Your task to perform on an android device: turn on the 24-hour format for clock Image 0: 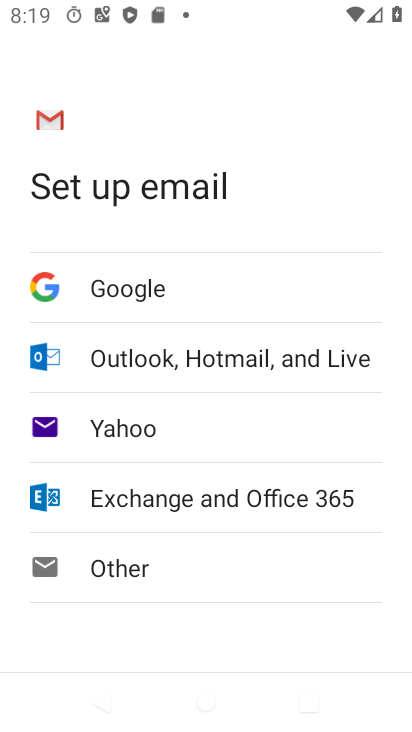
Step 0: press home button
Your task to perform on an android device: turn on the 24-hour format for clock Image 1: 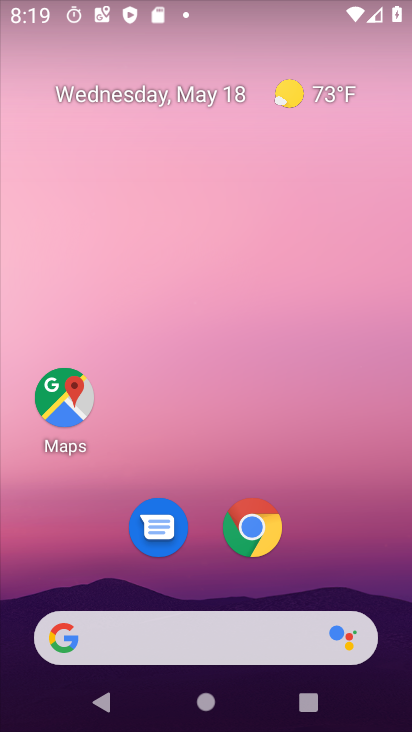
Step 1: drag from (390, 615) to (350, 204)
Your task to perform on an android device: turn on the 24-hour format for clock Image 2: 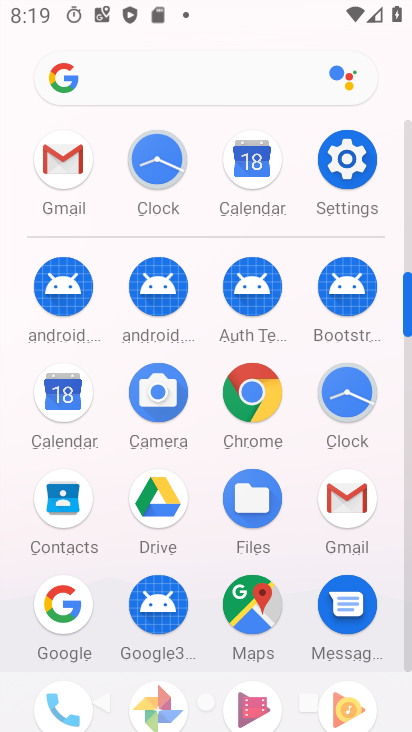
Step 2: click (342, 398)
Your task to perform on an android device: turn on the 24-hour format for clock Image 3: 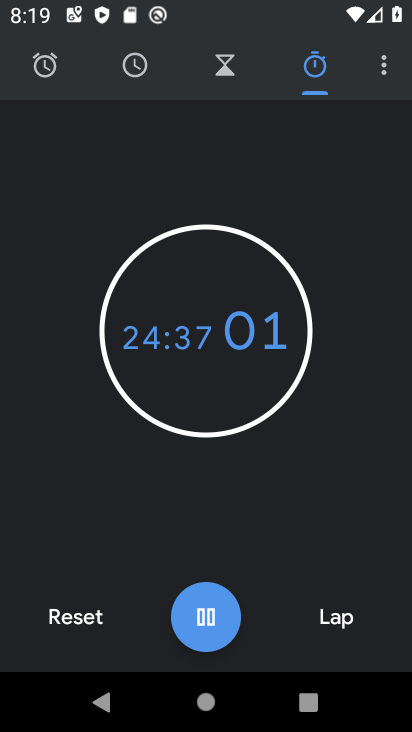
Step 3: click (384, 59)
Your task to perform on an android device: turn on the 24-hour format for clock Image 4: 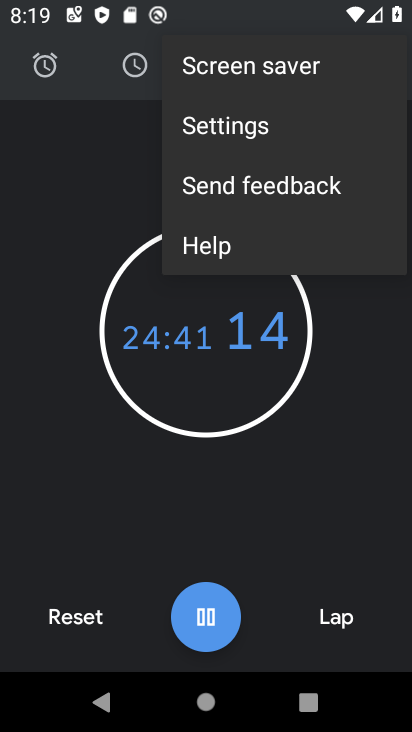
Step 4: click (243, 124)
Your task to perform on an android device: turn on the 24-hour format for clock Image 5: 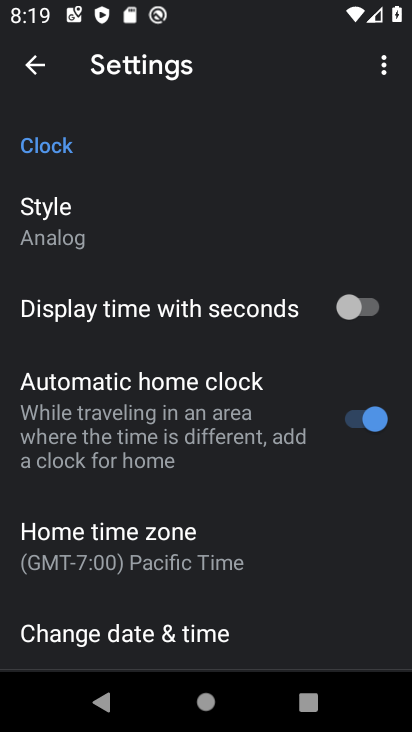
Step 5: drag from (290, 617) to (197, 170)
Your task to perform on an android device: turn on the 24-hour format for clock Image 6: 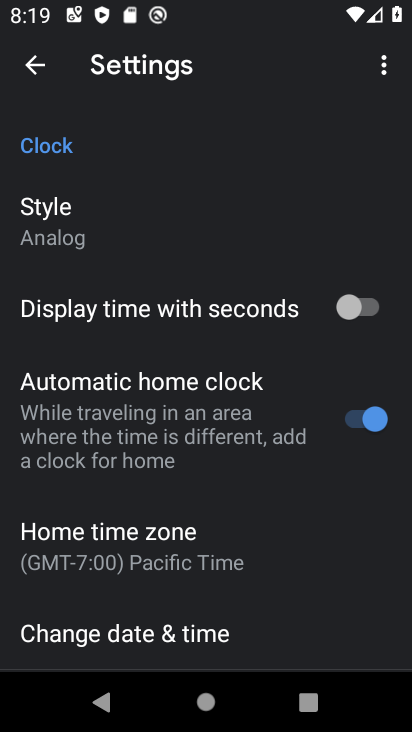
Step 6: click (134, 636)
Your task to perform on an android device: turn on the 24-hour format for clock Image 7: 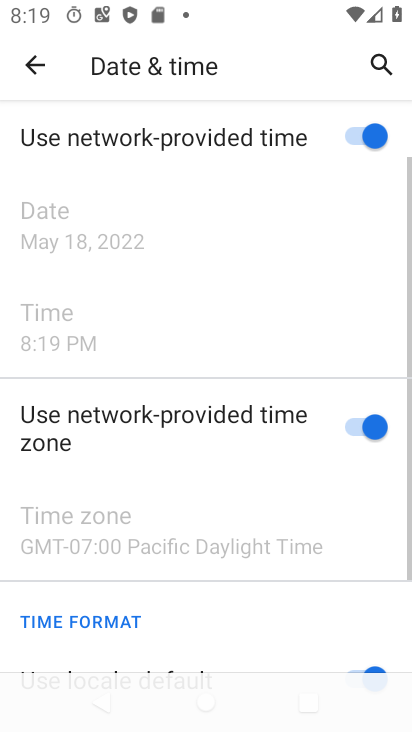
Step 7: drag from (252, 619) to (239, 185)
Your task to perform on an android device: turn on the 24-hour format for clock Image 8: 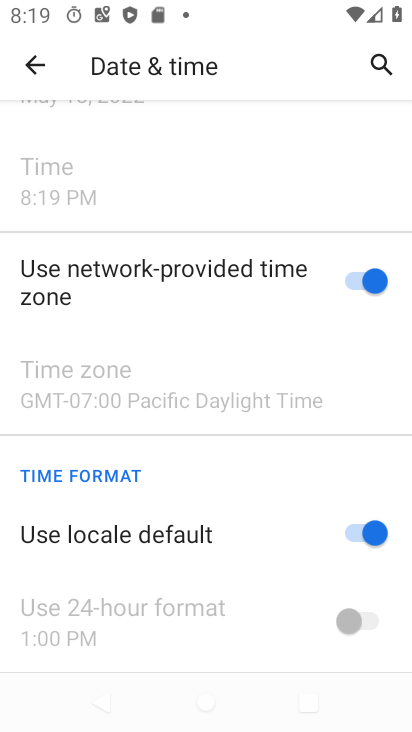
Step 8: click (358, 528)
Your task to perform on an android device: turn on the 24-hour format for clock Image 9: 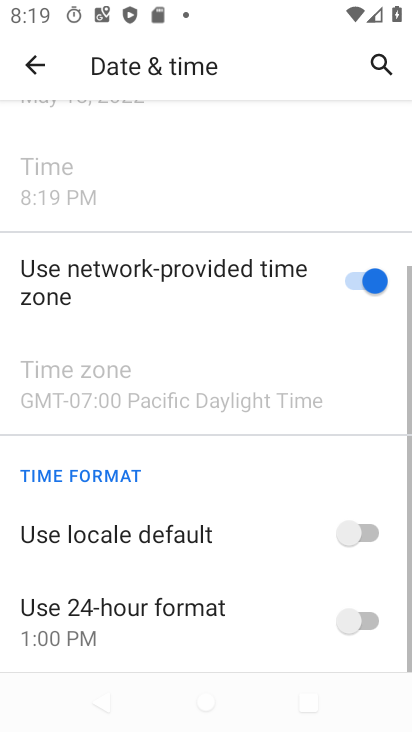
Step 9: click (374, 618)
Your task to perform on an android device: turn on the 24-hour format for clock Image 10: 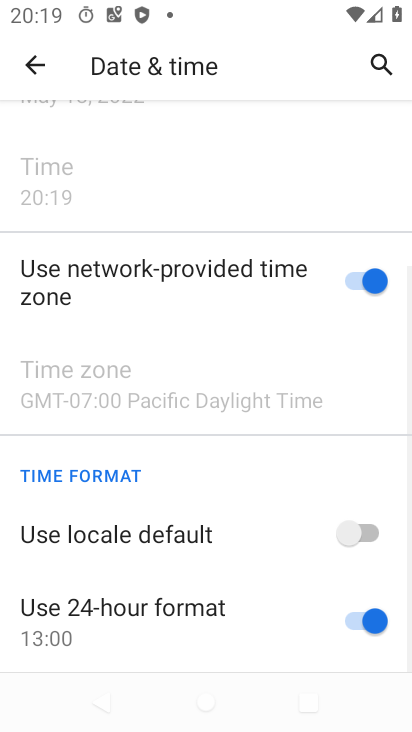
Step 10: task complete